Your task to perform on an android device: Open Amazon Image 0: 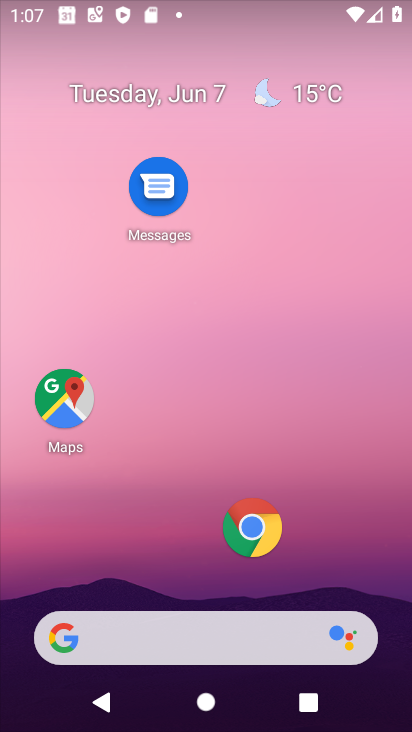
Step 0: drag from (207, 611) to (257, 139)
Your task to perform on an android device: Open Amazon Image 1: 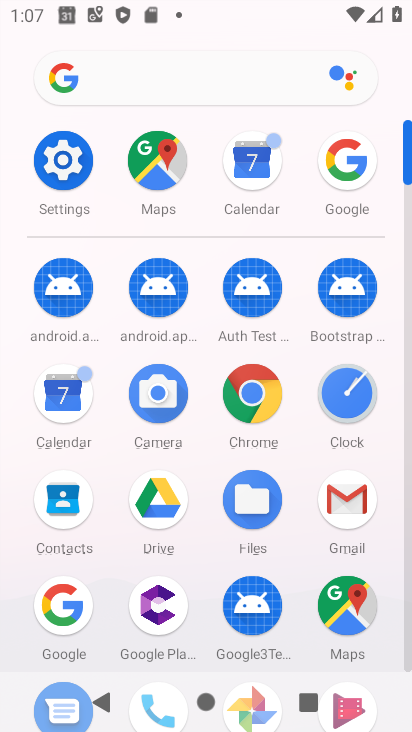
Step 1: click (67, 611)
Your task to perform on an android device: Open Amazon Image 2: 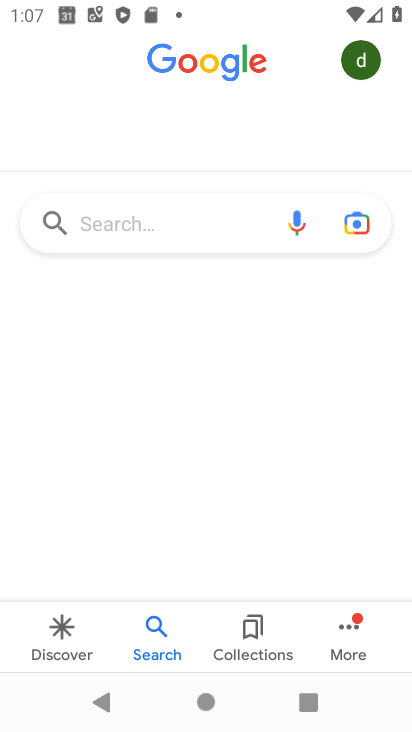
Step 2: click (182, 218)
Your task to perform on an android device: Open Amazon Image 3: 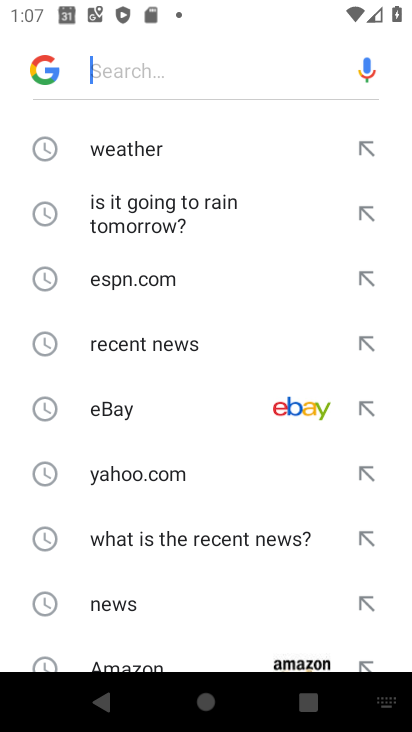
Step 3: drag from (132, 607) to (149, 309)
Your task to perform on an android device: Open Amazon Image 4: 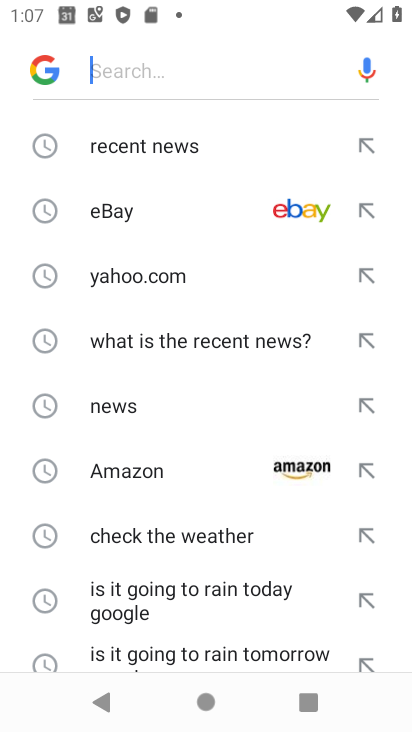
Step 4: click (147, 464)
Your task to perform on an android device: Open Amazon Image 5: 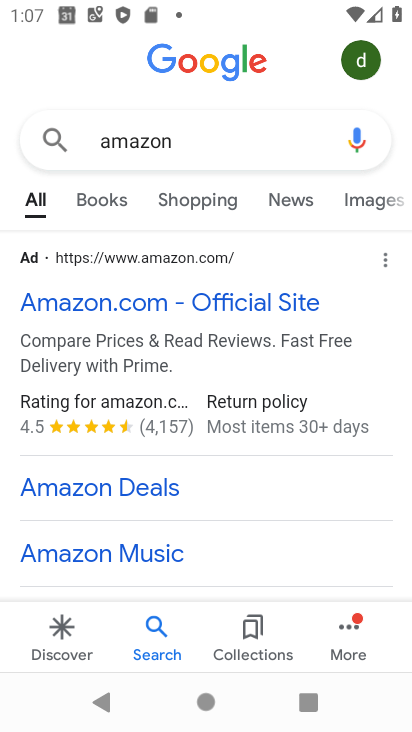
Step 5: click (143, 305)
Your task to perform on an android device: Open Amazon Image 6: 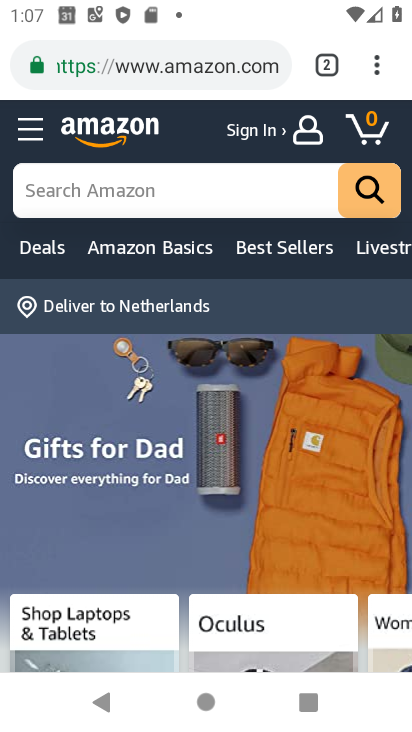
Step 6: task complete